Your task to perform on an android device: open a new tab in the chrome app Image 0: 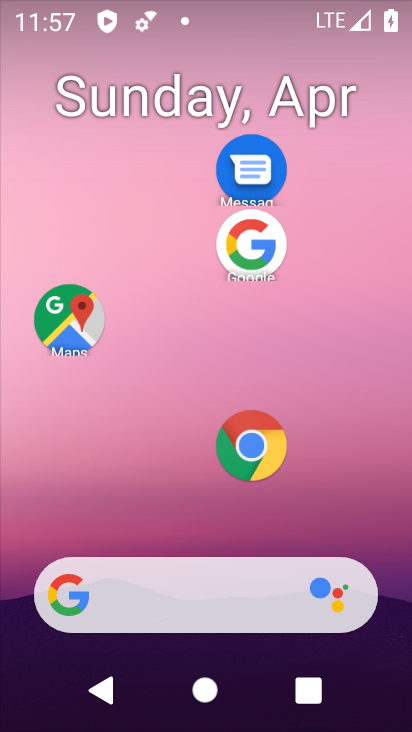
Step 0: drag from (165, 600) to (267, 177)
Your task to perform on an android device: open a new tab in the chrome app Image 1: 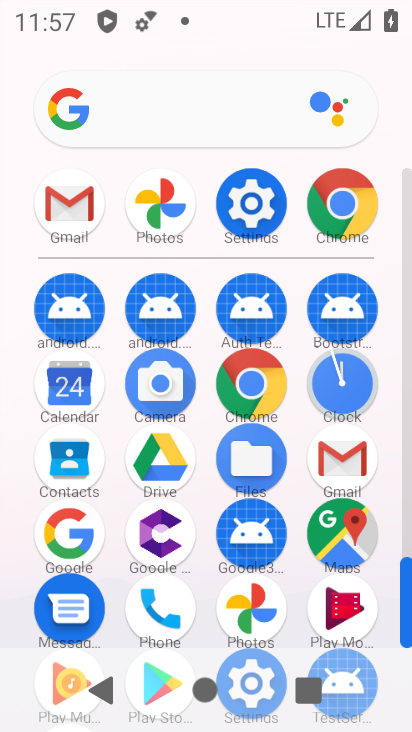
Step 1: click (333, 215)
Your task to perform on an android device: open a new tab in the chrome app Image 2: 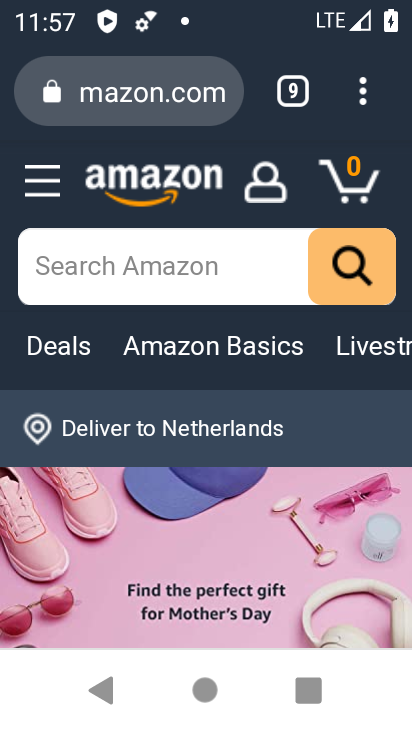
Step 2: task complete